Your task to perform on an android device: Toggle the flashlight Image 0: 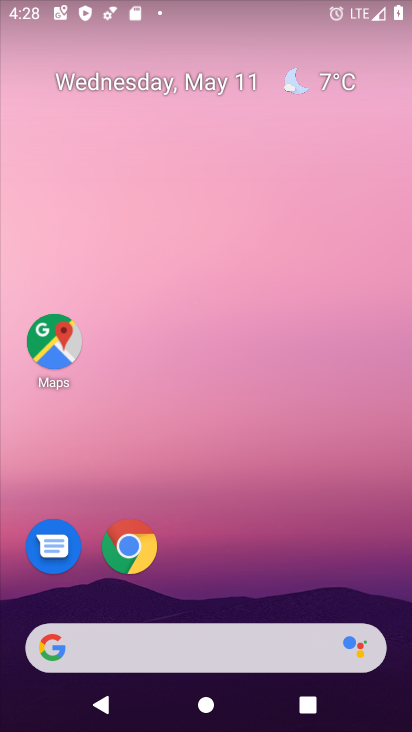
Step 0: drag from (301, 629) to (318, 8)
Your task to perform on an android device: Toggle the flashlight Image 1: 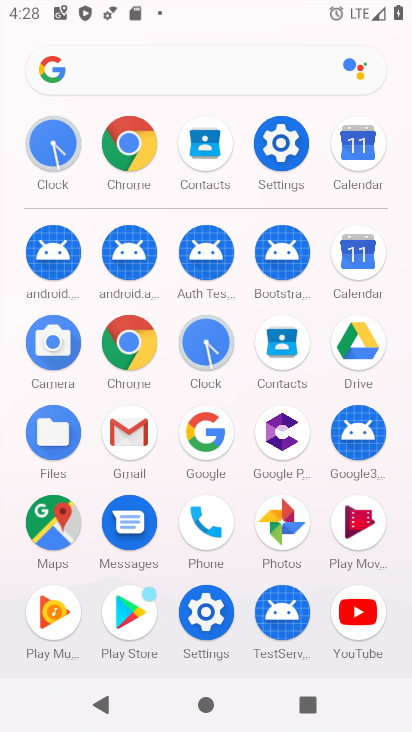
Step 1: click (257, 158)
Your task to perform on an android device: Toggle the flashlight Image 2: 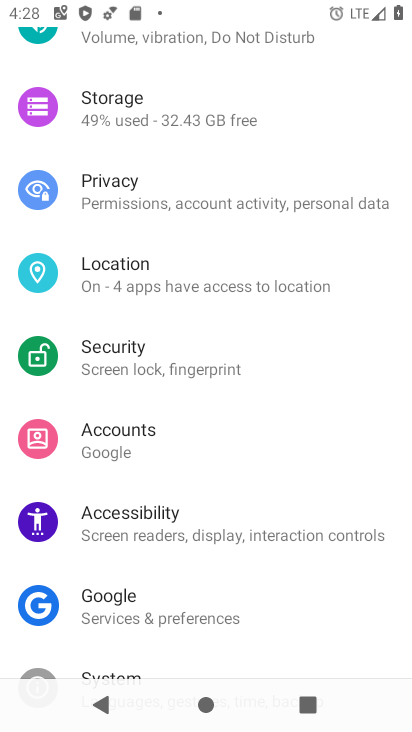
Step 2: task complete